Your task to perform on an android device: Search for seafood restaurants on Google Maps Image 0: 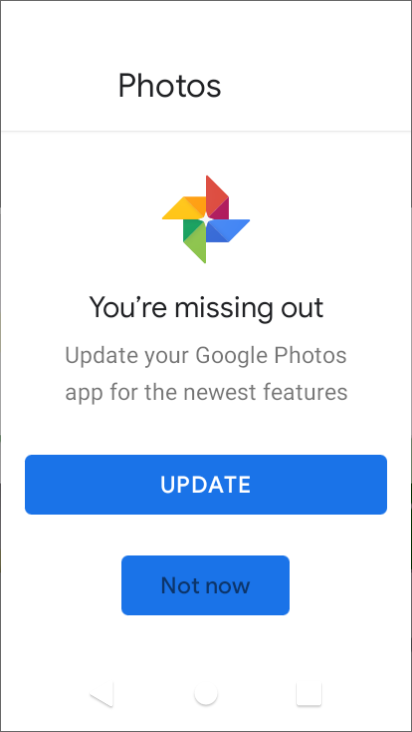
Step 0: press home button
Your task to perform on an android device: Search for seafood restaurants on Google Maps Image 1: 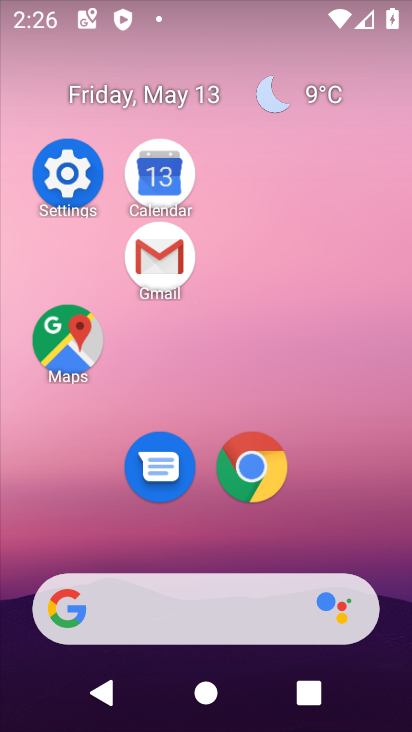
Step 1: click (80, 341)
Your task to perform on an android device: Search for seafood restaurants on Google Maps Image 2: 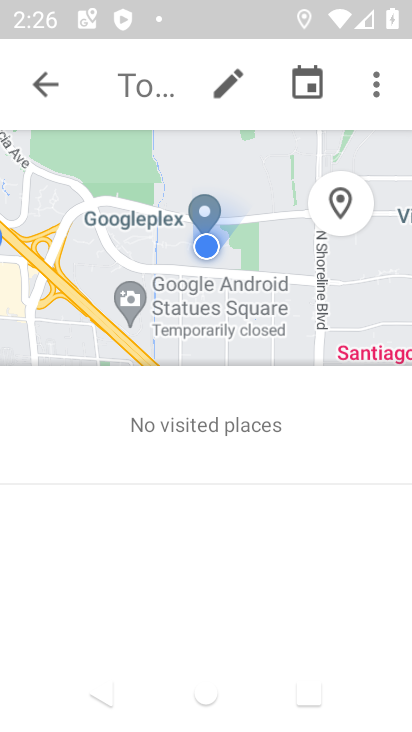
Step 2: click (45, 65)
Your task to perform on an android device: Search for seafood restaurants on Google Maps Image 3: 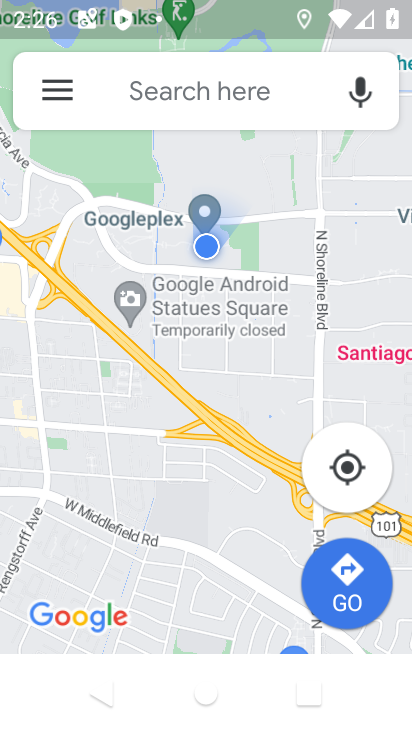
Step 3: click (216, 84)
Your task to perform on an android device: Search for seafood restaurants on Google Maps Image 4: 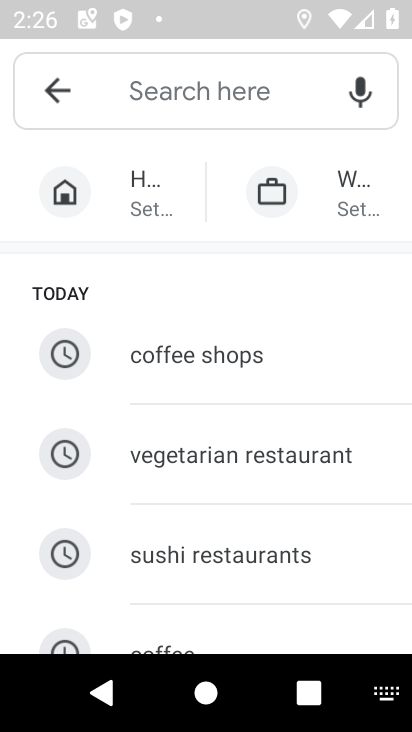
Step 4: type "seafood restaurants"
Your task to perform on an android device: Search for seafood restaurants on Google Maps Image 5: 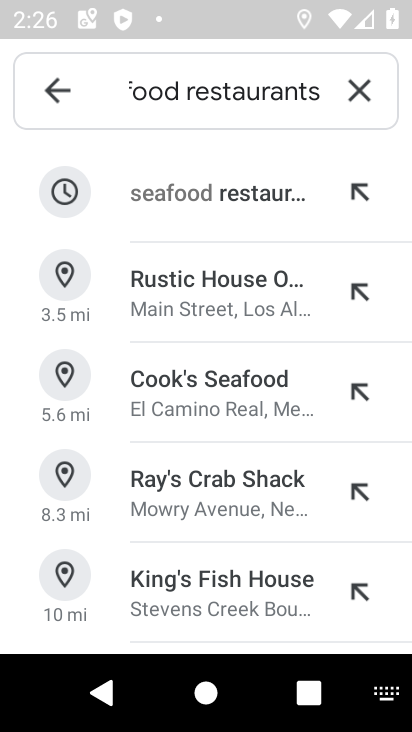
Step 5: click (209, 205)
Your task to perform on an android device: Search for seafood restaurants on Google Maps Image 6: 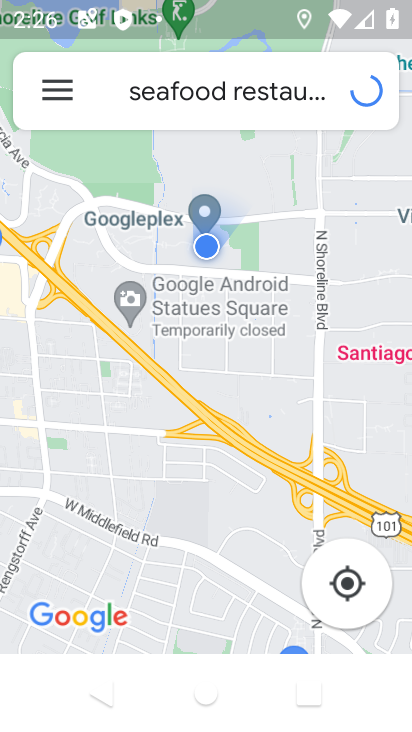
Step 6: task complete